Your task to perform on an android device: Go to eBay Image 0: 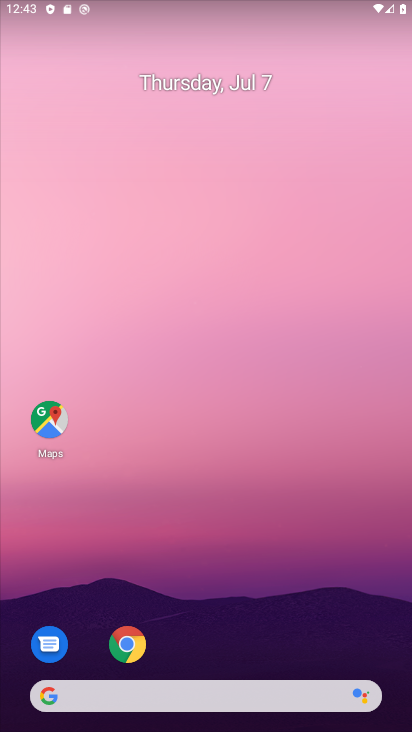
Step 0: click (139, 644)
Your task to perform on an android device: Go to eBay Image 1: 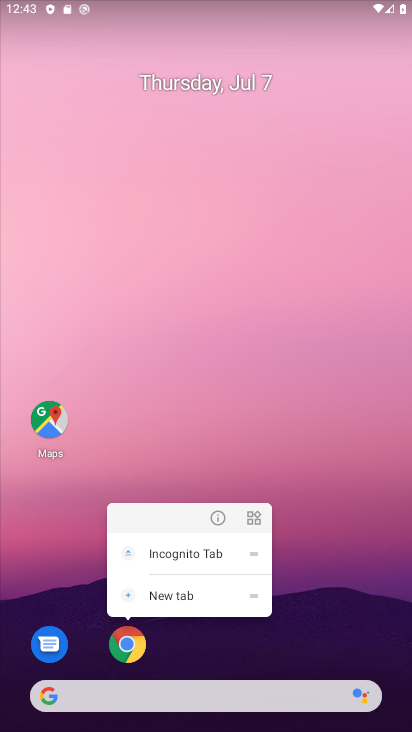
Step 1: click (131, 652)
Your task to perform on an android device: Go to eBay Image 2: 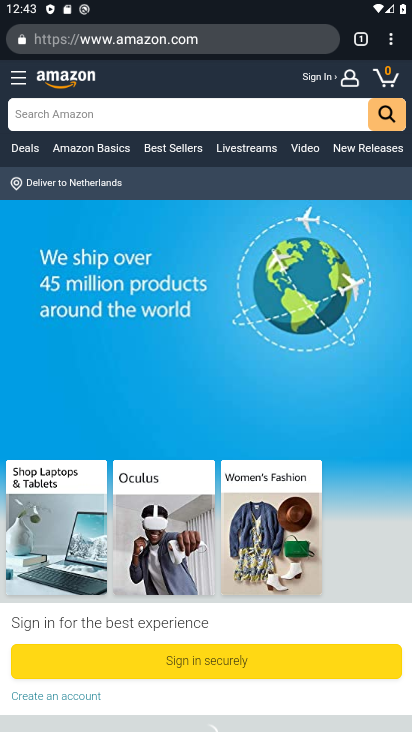
Step 2: click (209, 34)
Your task to perform on an android device: Go to eBay Image 3: 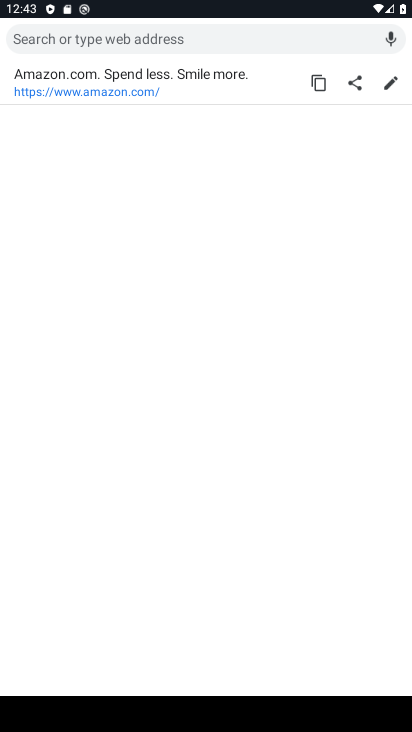
Step 3: type "eBay"
Your task to perform on an android device: Go to eBay Image 4: 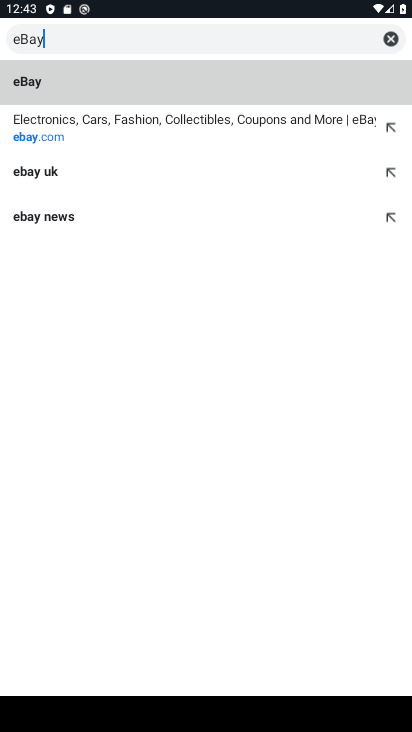
Step 4: click (202, 121)
Your task to perform on an android device: Go to eBay Image 5: 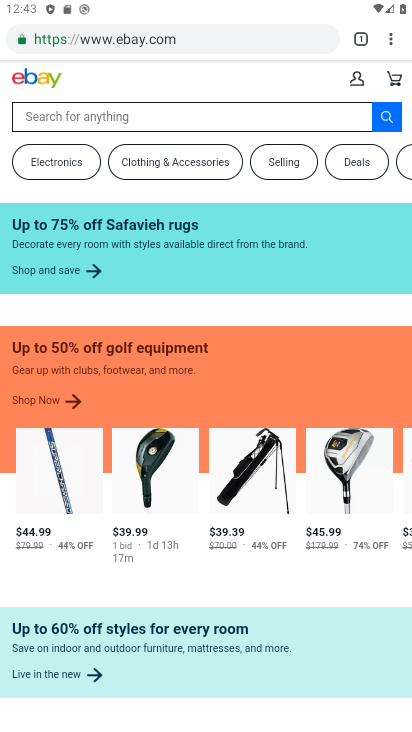
Step 5: task complete